Your task to perform on an android device: turn off wifi Image 0: 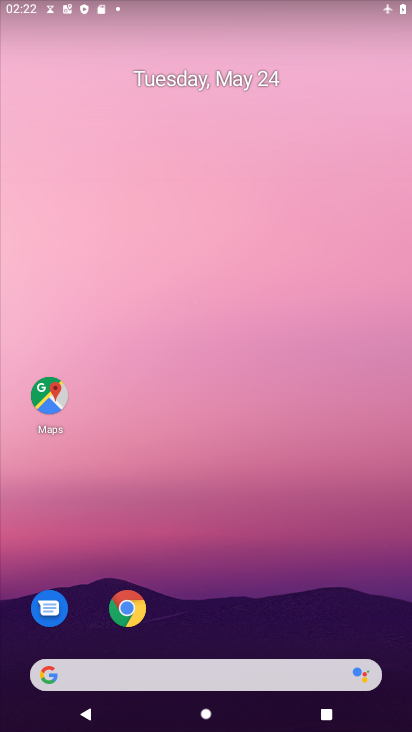
Step 0: drag from (236, 626) to (238, 66)
Your task to perform on an android device: turn off wifi Image 1: 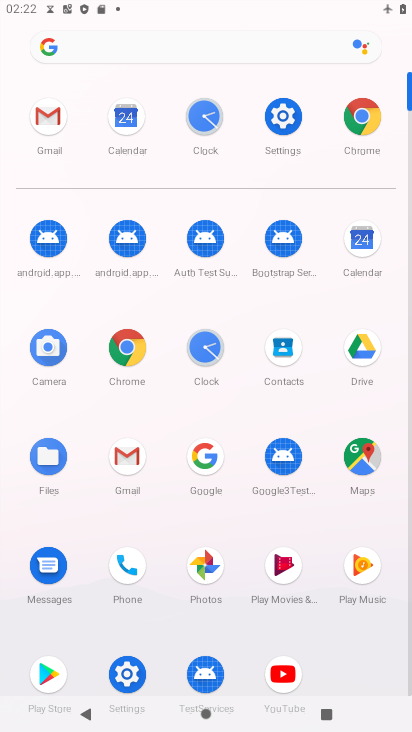
Step 1: click (264, 113)
Your task to perform on an android device: turn off wifi Image 2: 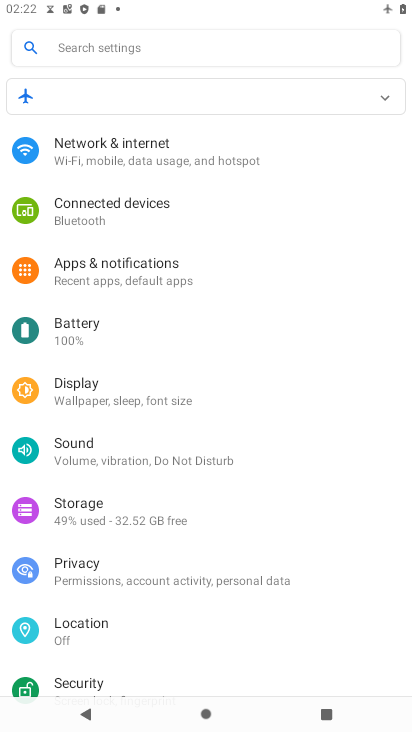
Step 2: click (250, 150)
Your task to perform on an android device: turn off wifi Image 3: 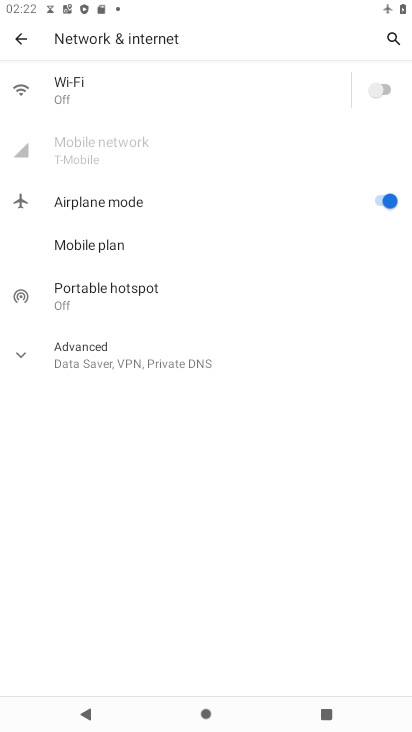
Step 3: task complete